Your task to perform on an android device: Open accessibility settings Image 0: 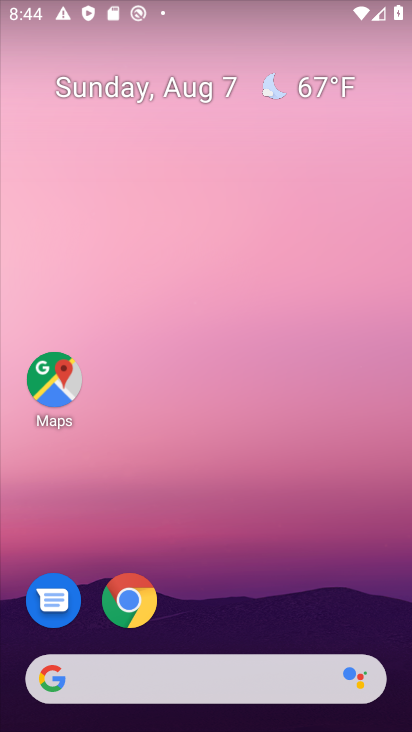
Step 0: drag from (198, 543) to (197, 174)
Your task to perform on an android device: Open accessibility settings Image 1: 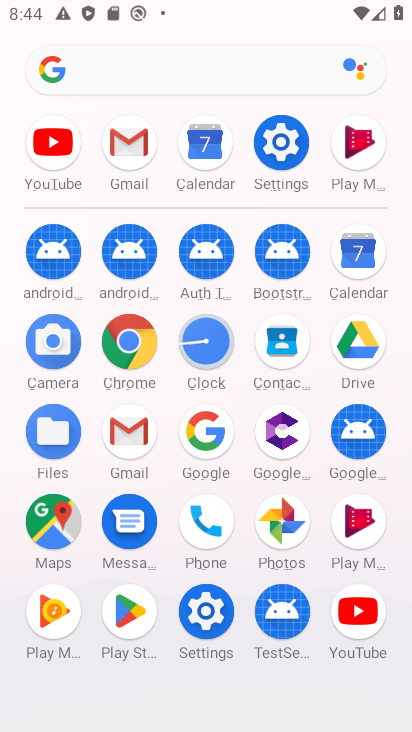
Step 1: click (278, 146)
Your task to perform on an android device: Open accessibility settings Image 2: 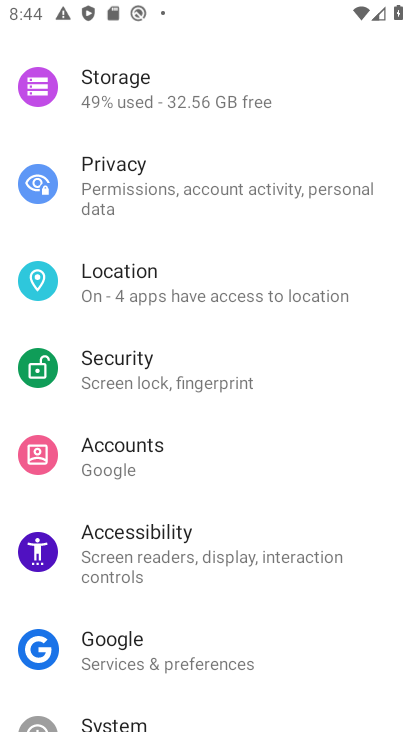
Step 2: click (124, 575)
Your task to perform on an android device: Open accessibility settings Image 3: 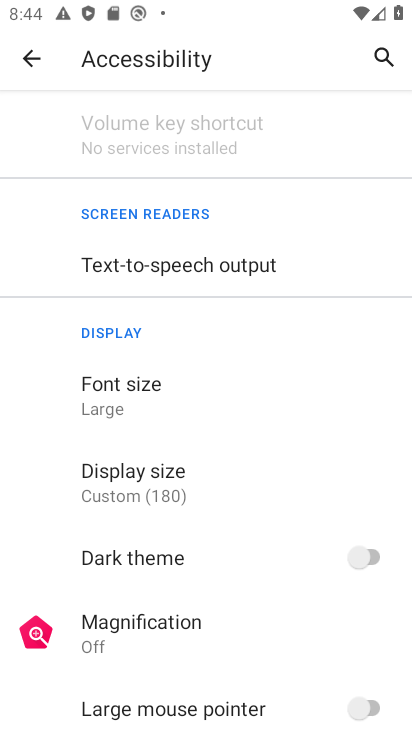
Step 3: task complete